Your task to perform on an android device: Open sound settings Image 0: 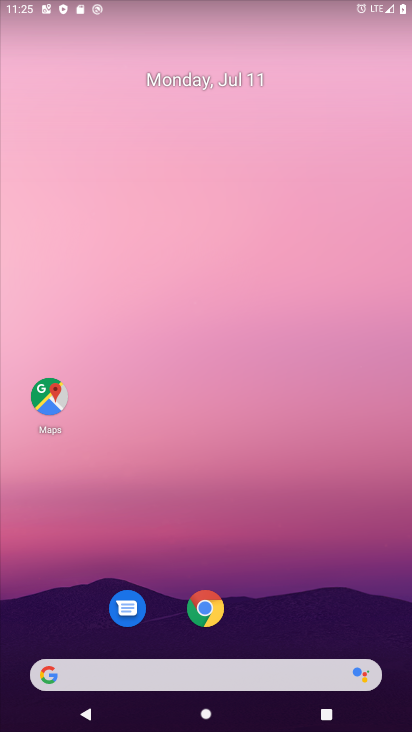
Step 0: drag from (37, 701) to (170, 108)
Your task to perform on an android device: Open sound settings Image 1: 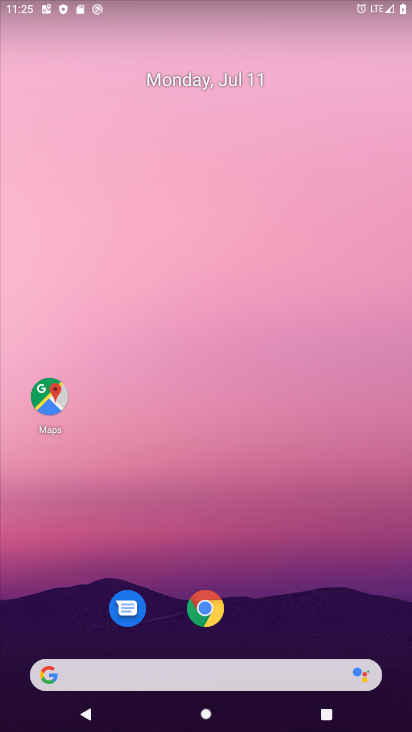
Step 1: drag from (48, 704) to (187, 3)
Your task to perform on an android device: Open sound settings Image 2: 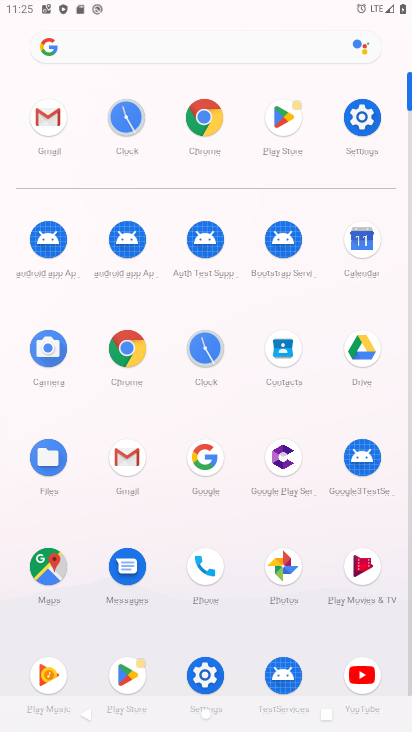
Step 2: click (215, 673)
Your task to perform on an android device: Open sound settings Image 3: 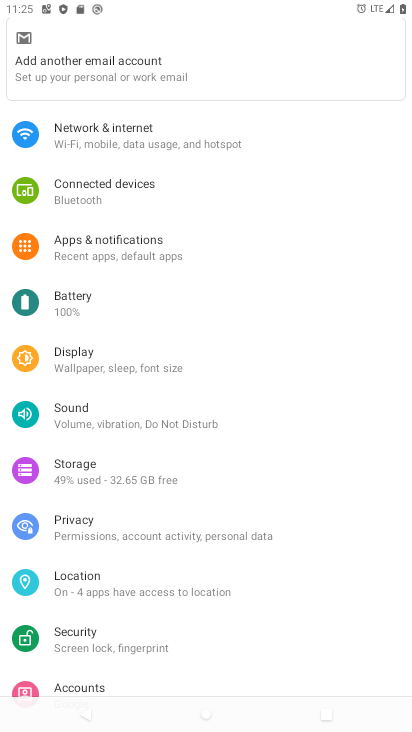
Step 3: click (125, 410)
Your task to perform on an android device: Open sound settings Image 4: 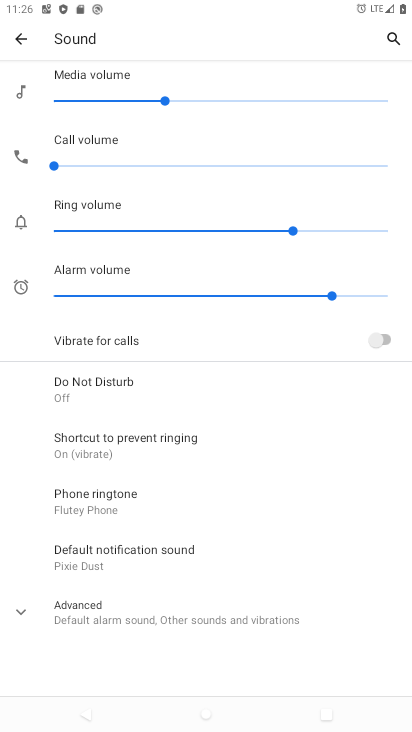
Step 4: task complete